Your task to perform on an android device: toggle javascript in the chrome app Image 0: 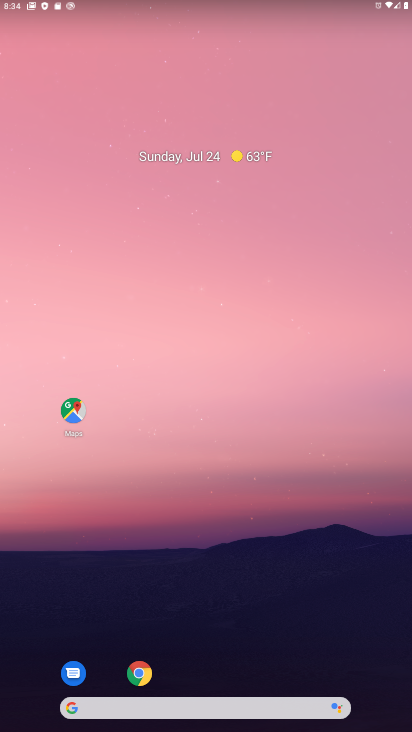
Step 0: drag from (232, 698) to (128, 97)
Your task to perform on an android device: toggle javascript in the chrome app Image 1: 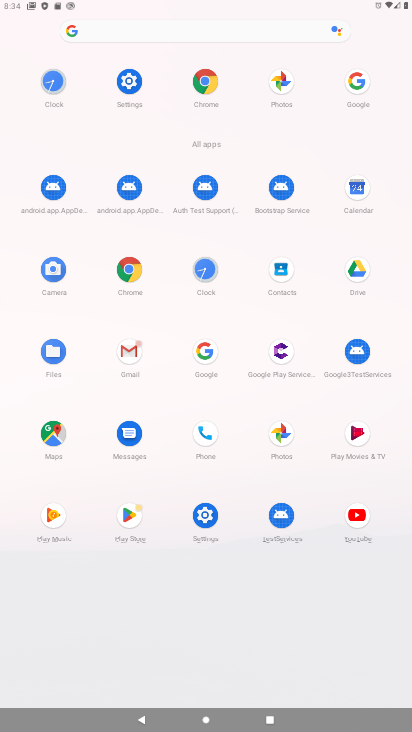
Step 1: click (125, 286)
Your task to perform on an android device: toggle javascript in the chrome app Image 2: 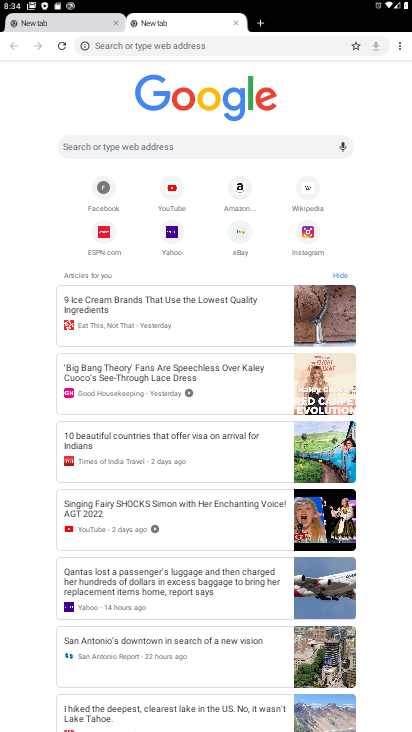
Step 2: click (401, 45)
Your task to perform on an android device: toggle javascript in the chrome app Image 3: 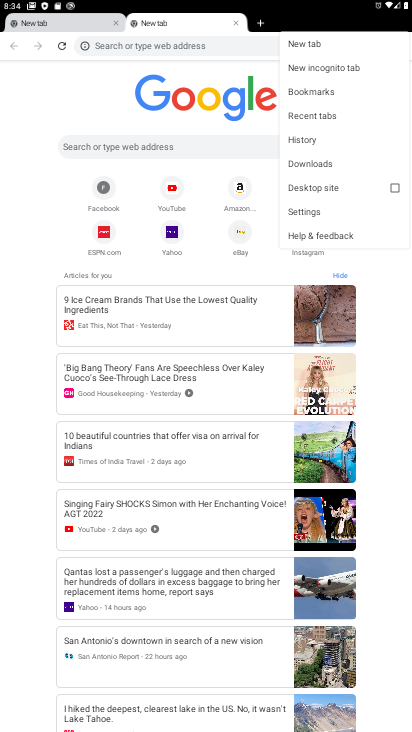
Step 3: click (302, 204)
Your task to perform on an android device: toggle javascript in the chrome app Image 4: 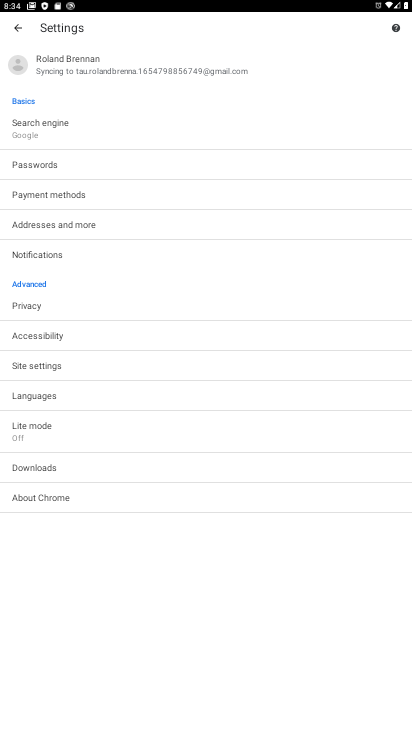
Step 4: click (29, 363)
Your task to perform on an android device: toggle javascript in the chrome app Image 5: 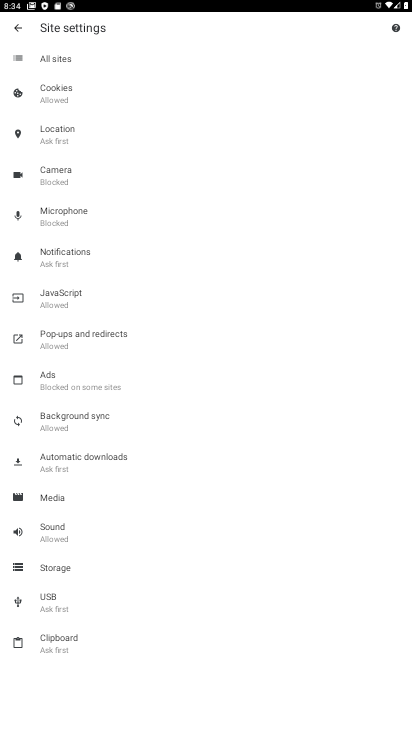
Step 5: click (60, 315)
Your task to perform on an android device: toggle javascript in the chrome app Image 6: 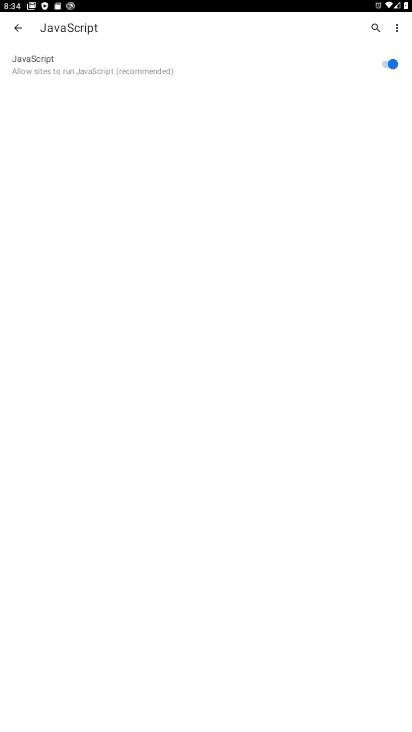
Step 6: click (382, 70)
Your task to perform on an android device: toggle javascript in the chrome app Image 7: 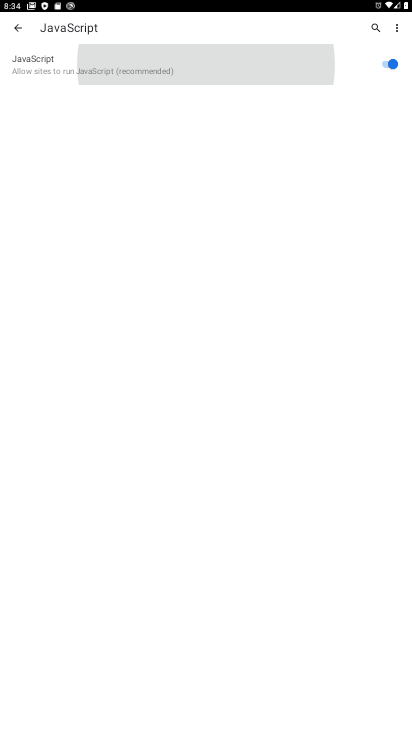
Step 7: task complete